Your task to perform on an android device: all mails in gmail Image 0: 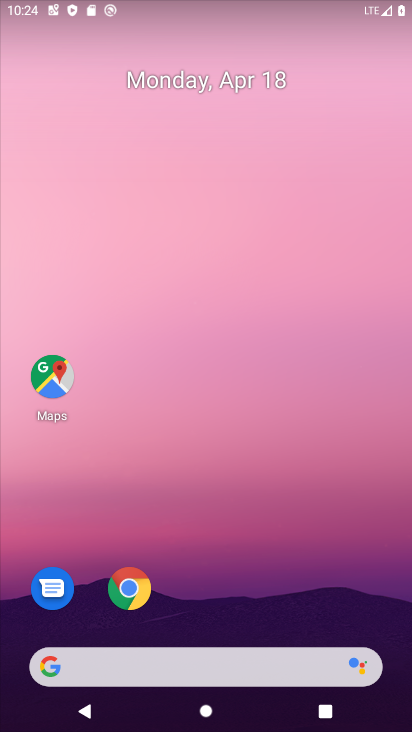
Step 0: drag from (398, 665) to (319, 104)
Your task to perform on an android device: all mails in gmail Image 1: 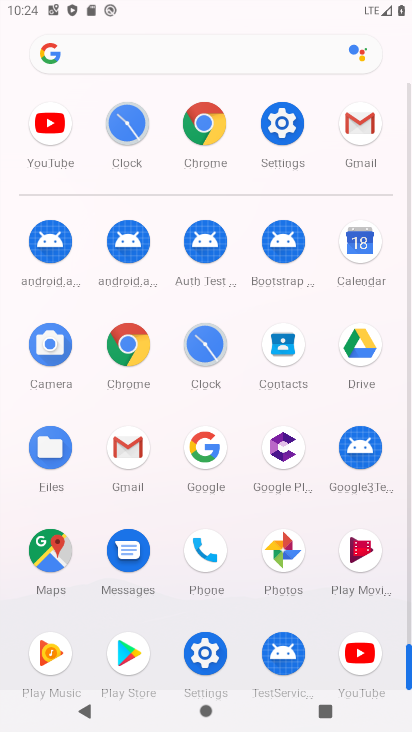
Step 1: click (126, 449)
Your task to perform on an android device: all mails in gmail Image 2: 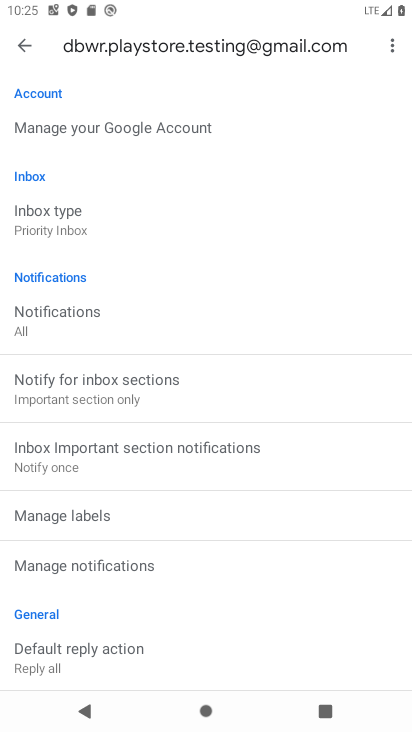
Step 2: press back button
Your task to perform on an android device: all mails in gmail Image 3: 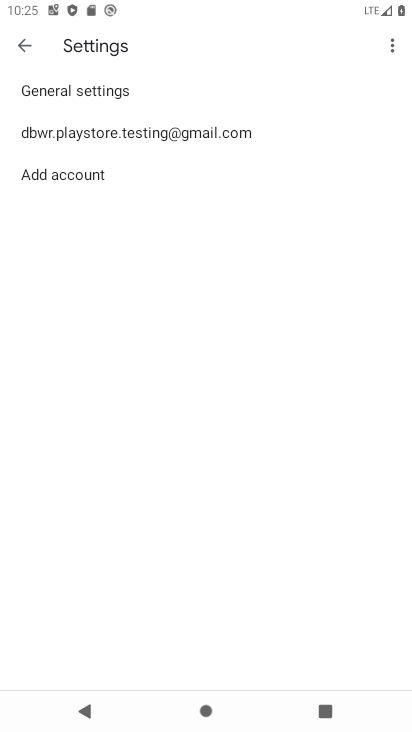
Step 3: press back button
Your task to perform on an android device: all mails in gmail Image 4: 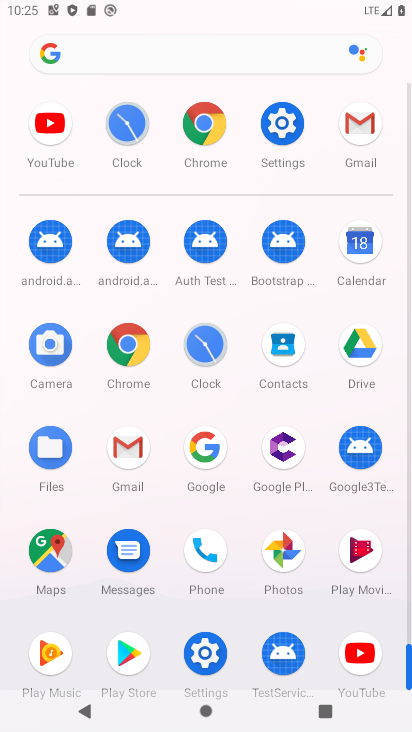
Step 4: click (129, 445)
Your task to perform on an android device: all mails in gmail Image 5: 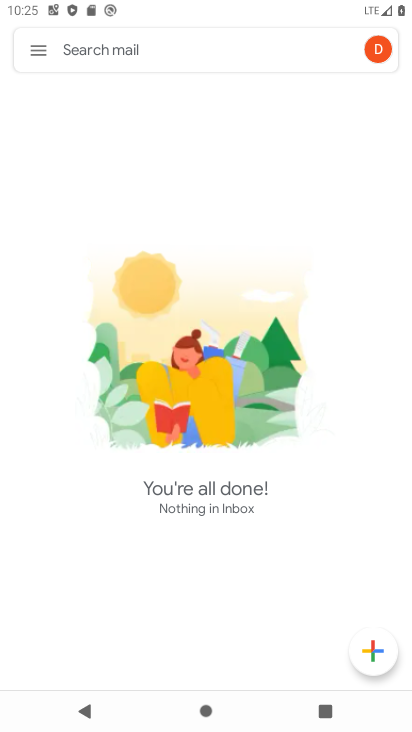
Step 5: click (34, 47)
Your task to perform on an android device: all mails in gmail Image 6: 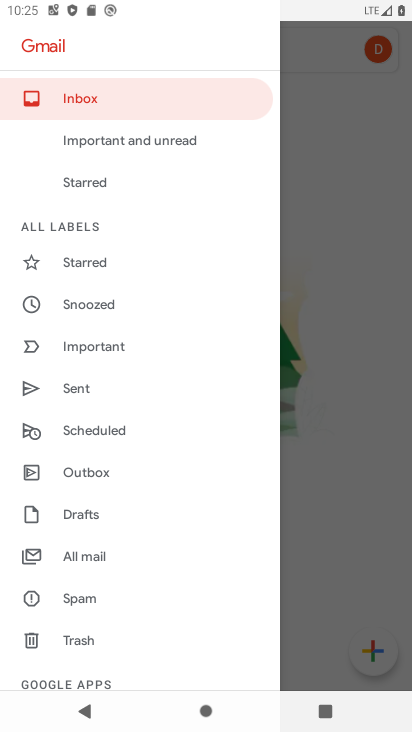
Step 6: click (90, 553)
Your task to perform on an android device: all mails in gmail Image 7: 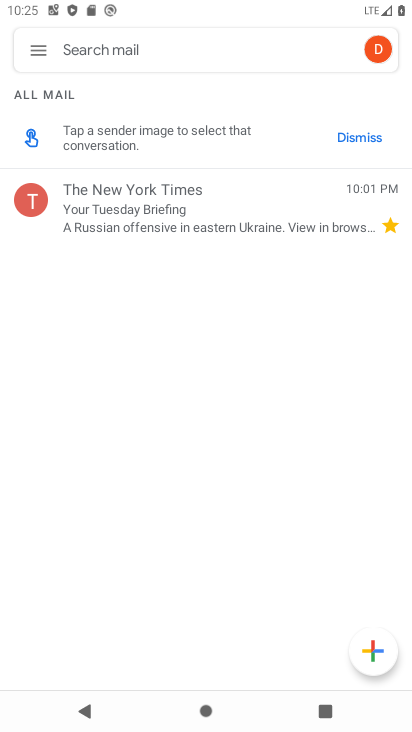
Step 7: task complete